Your task to perform on an android device: turn notification dots on Image 0: 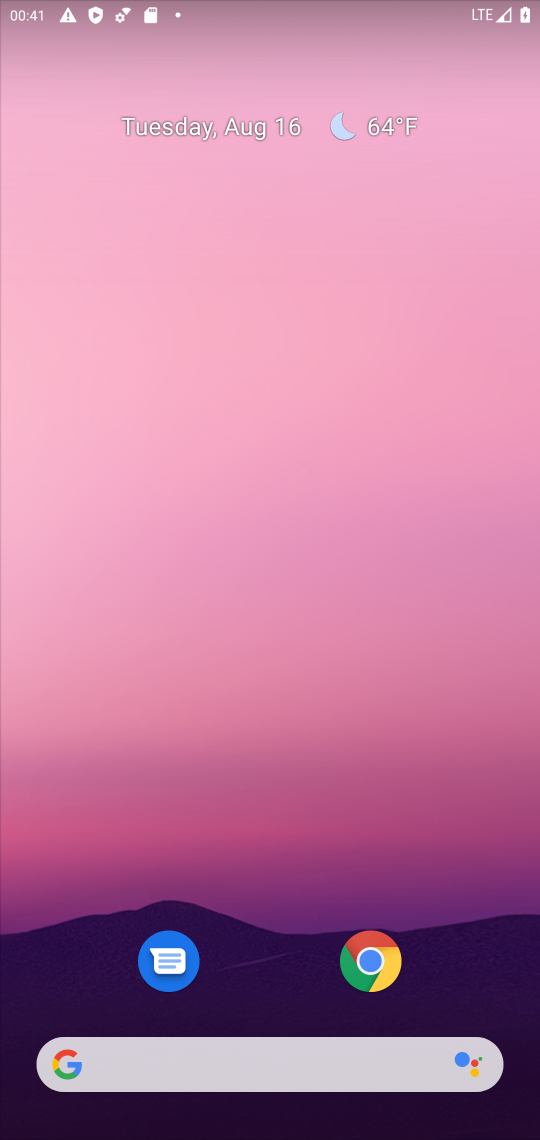
Step 0: press home button
Your task to perform on an android device: turn notification dots on Image 1: 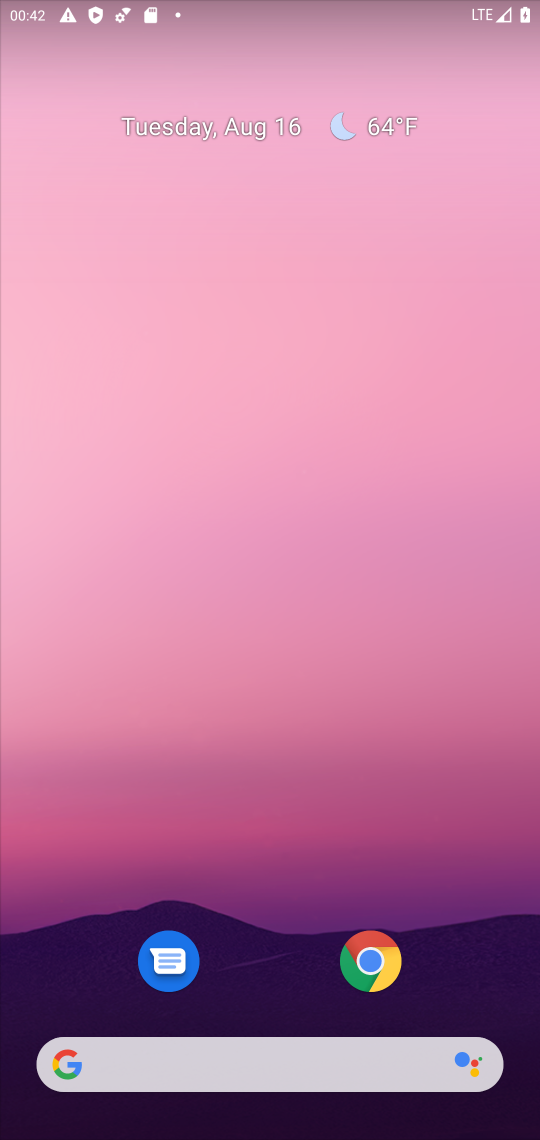
Step 1: drag from (297, 1002) to (314, 362)
Your task to perform on an android device: turn notification dots on Image 2: 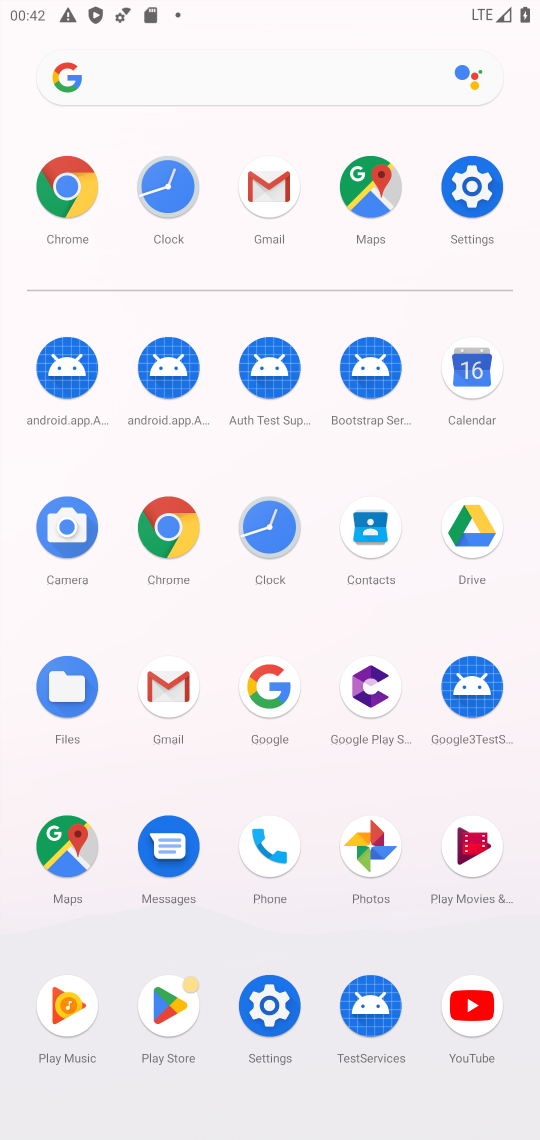
Step 2: click (263, 1009)
Your task to perform on an android device: turn notification dots on Image 3: 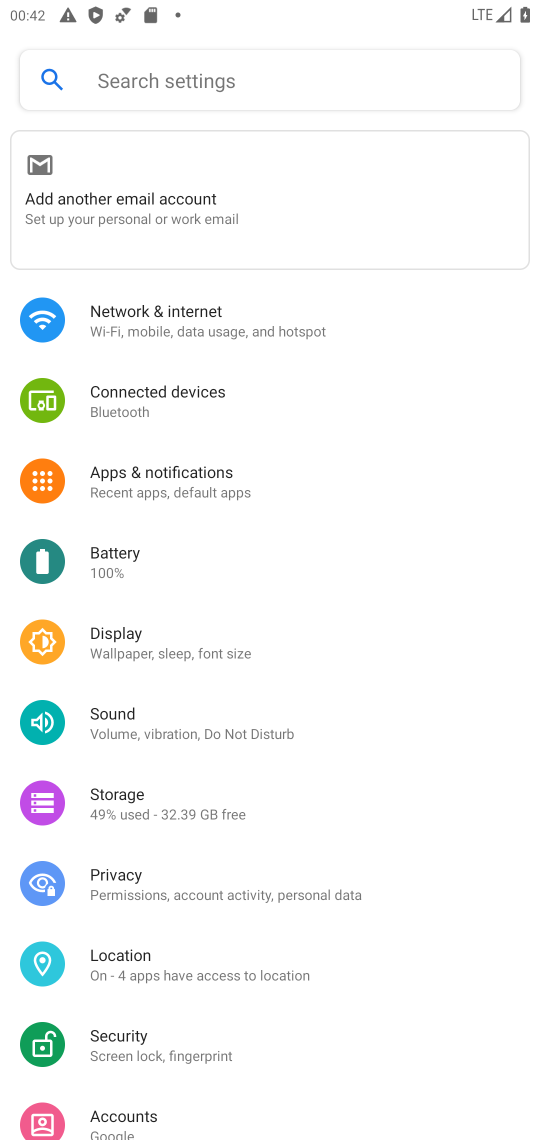
Step 3: click (251, 476)
Your task to perform on an android device: turn notification dots on Image 4: 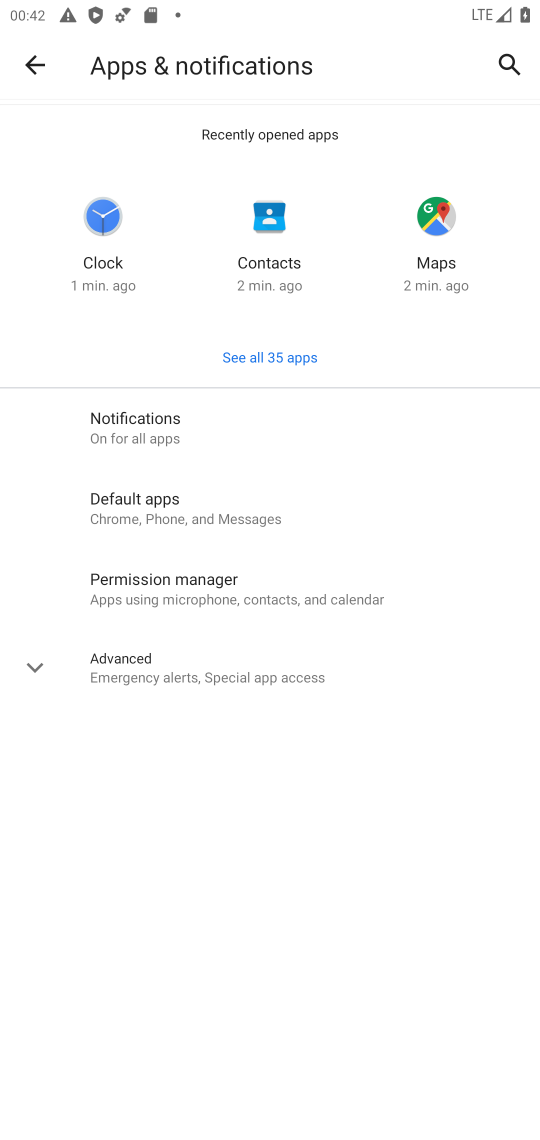
Step 4: click (227, 416)
Your task to perform on an android device: turn notification dots on Image 5: 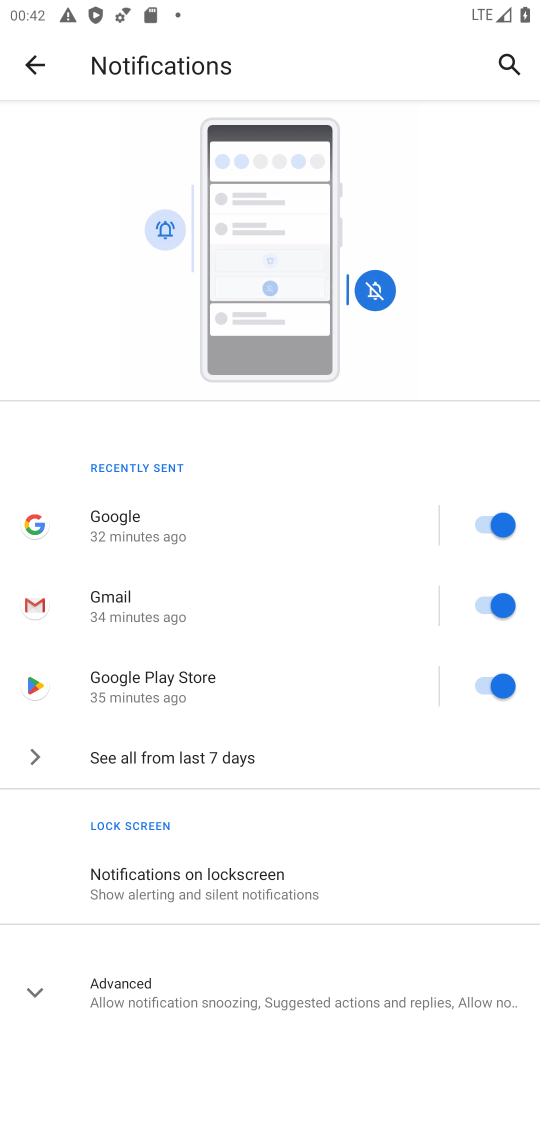
Step 5: click (178, 982)
Your task to perform on an android device: turn notification dots on Image 6: 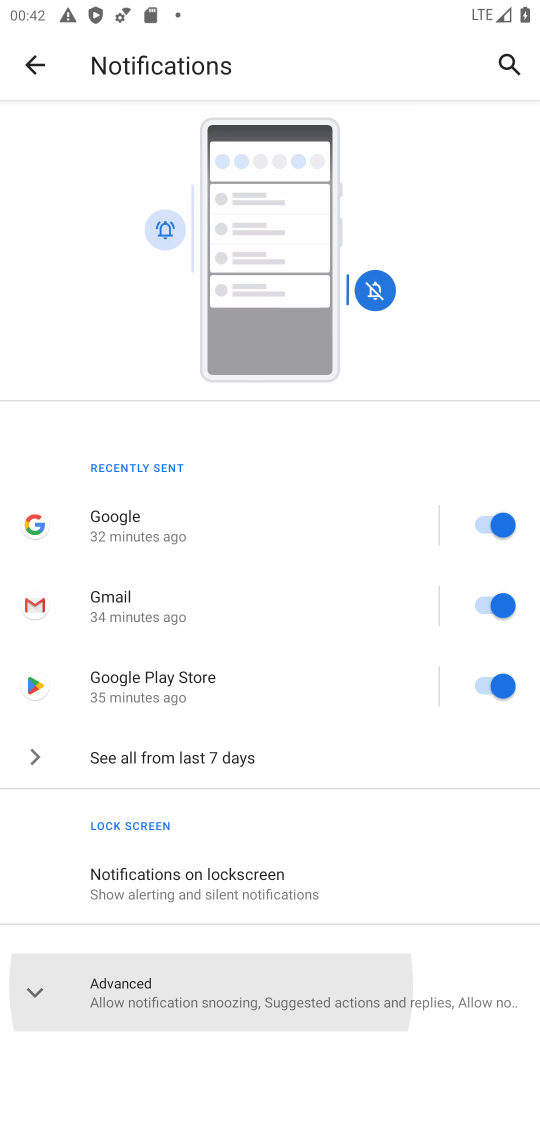
Step 6: click (69, 18)
Your task to perform on an android device: turn notification dots on Image 7: 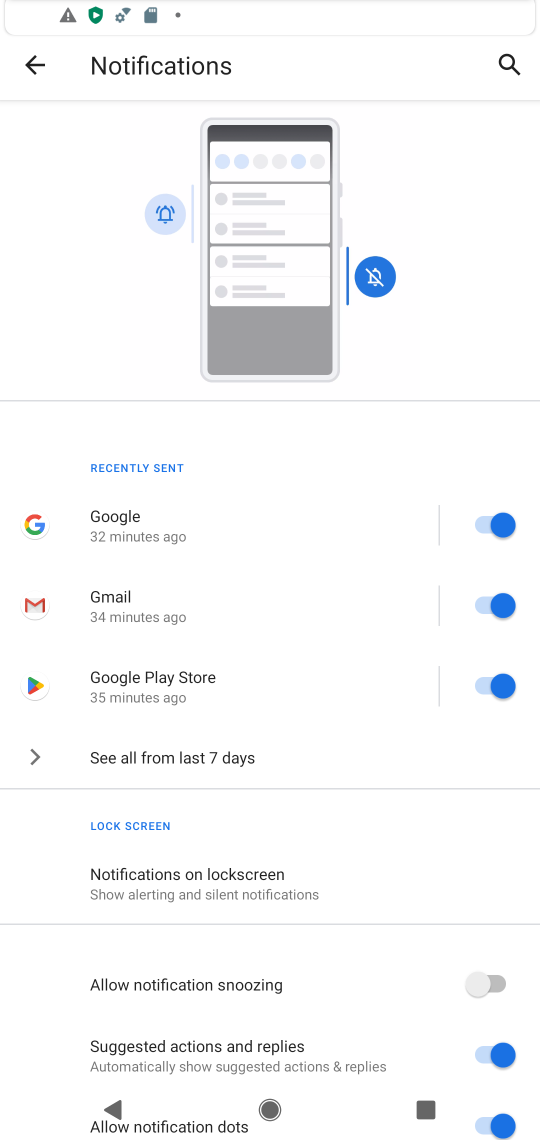
Step 7: drag from (161, 755) to (130, 66)
Your task to perform on an android device: turn notification dots on Image 8: 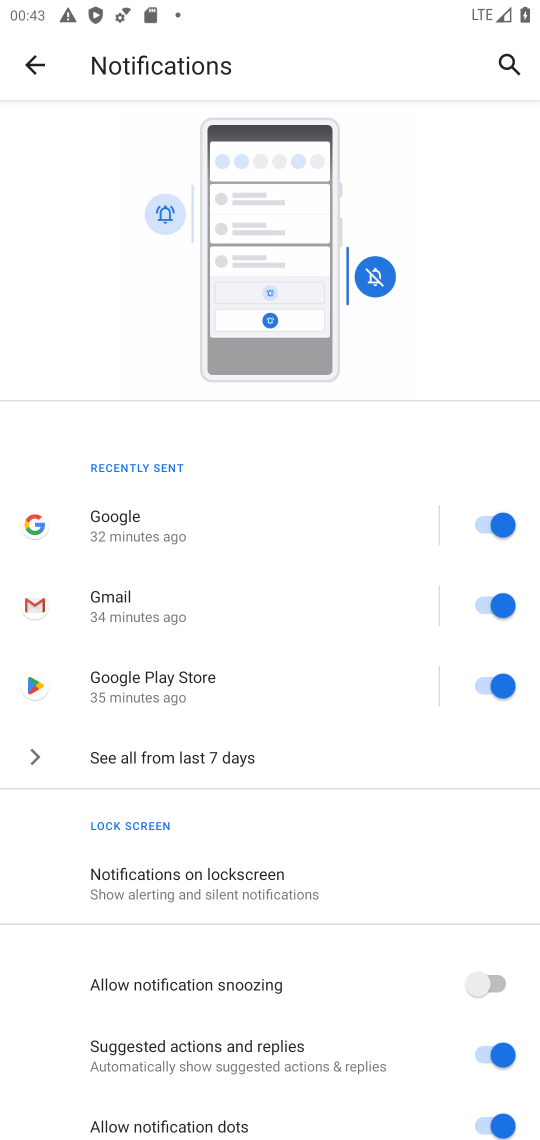
Step 8: drag from (165, 983) to (155, 375)
Your task to perform on an android device: turn notification dots on Image 9: 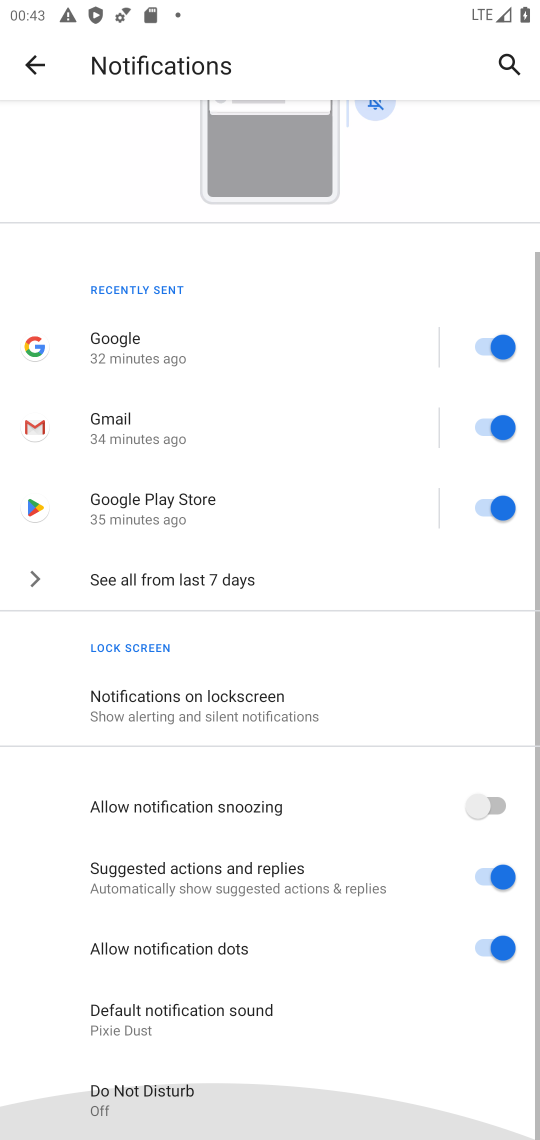
Step 9: click (155, 375)
Your task to perform on an android device: turn notification dots on Image 10: 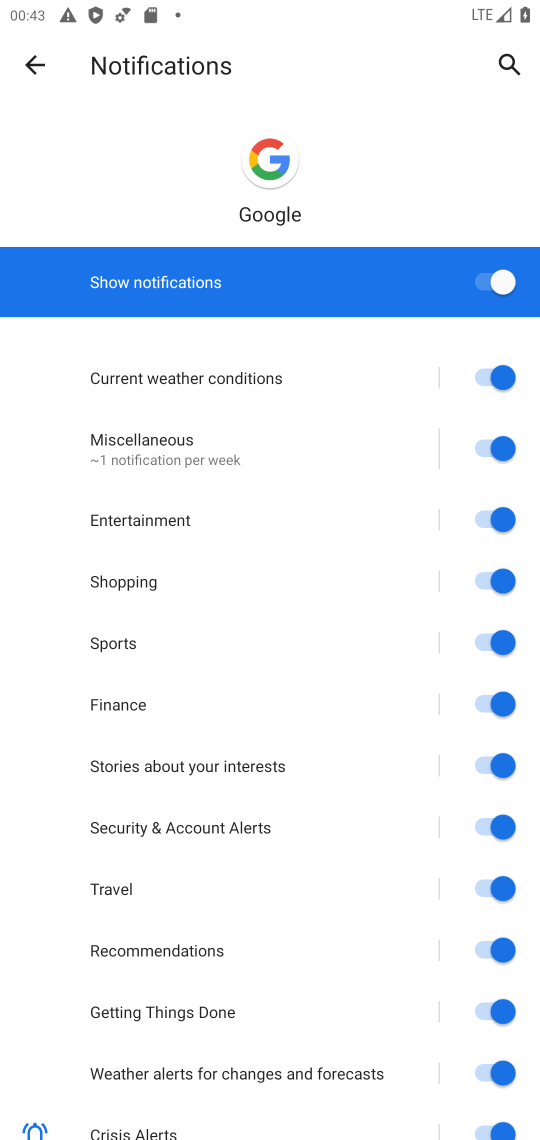
Step 10: click (32, 69)
Your task to perform on an android device: turn notification dots on Image 11: 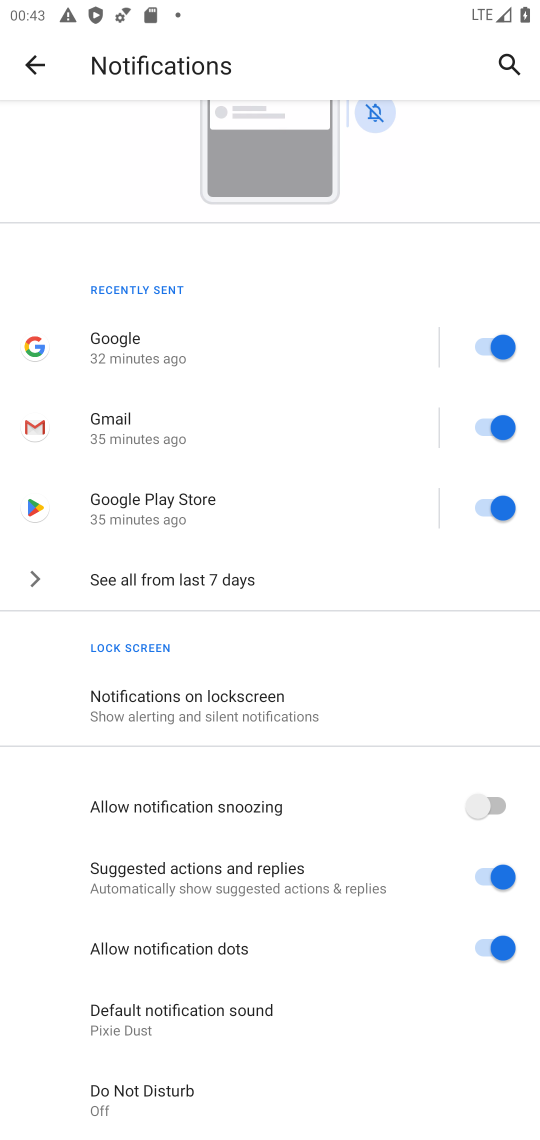
Step 11: task complete